Your task to perform on an android device: check data usage Image 0: 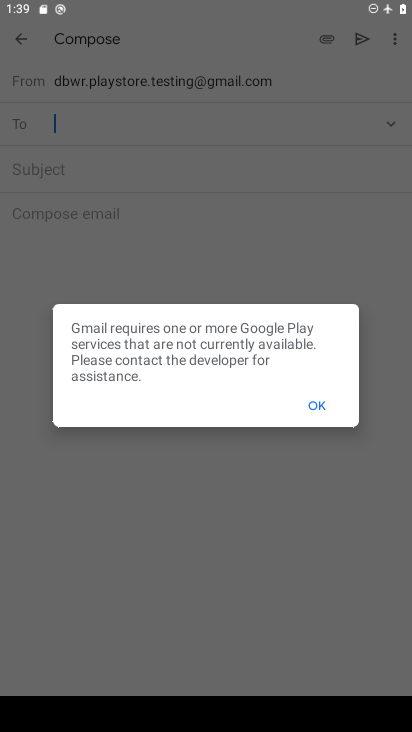
Step 0: click (317, 402)
Your task to perform on an android device: check data usage Image 1: 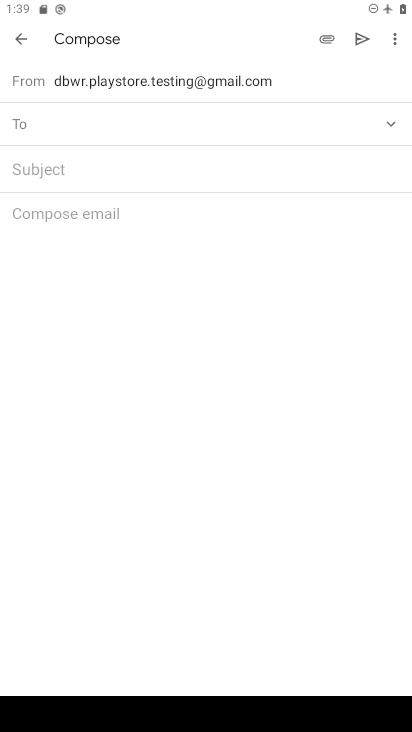
Step 1: drag from (197, 594) to (228, 140)
Your task to perform on an android device: check data usage Image 2: 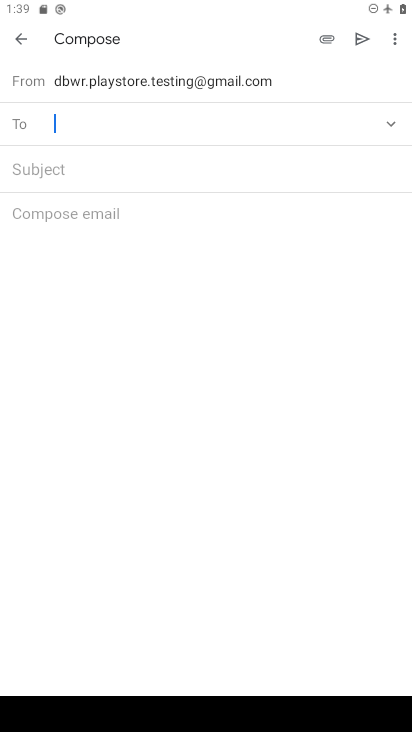
Step 2: click (182, 365)
Your task to perform on an android device: check data usage Image 3: 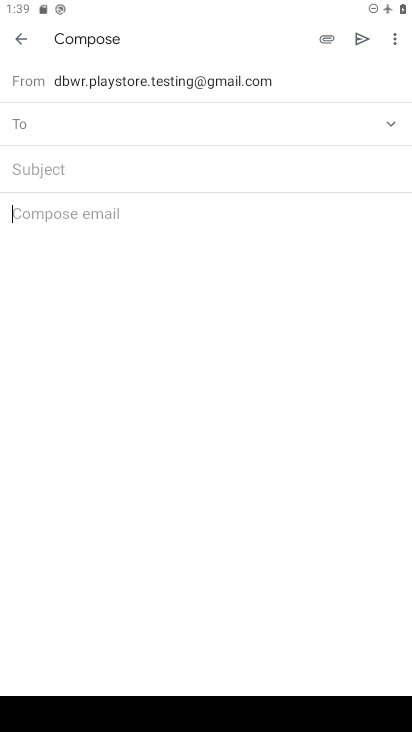
Step 3: press home button
Your task to perform on an android device: check data usage Image 4: 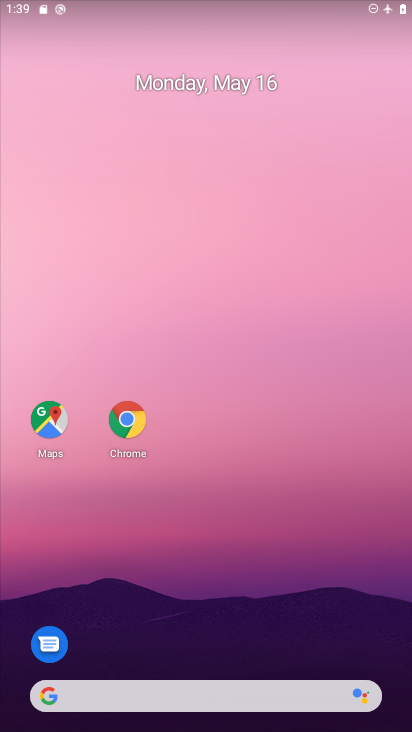
Step 4: drag from (206, 549) to (293, 43)
Your task to perform on an android device: check data usage Image 5: 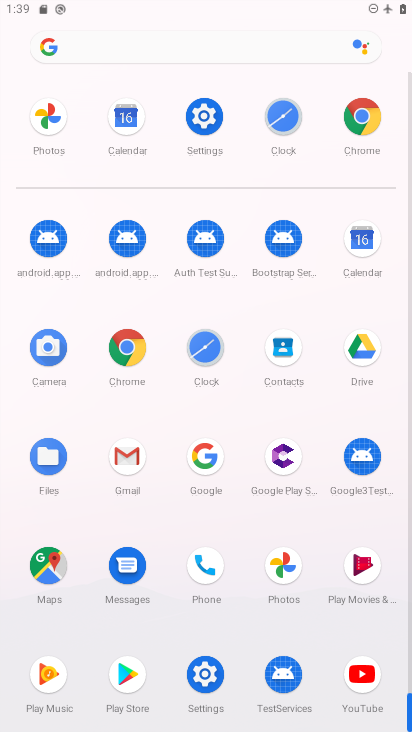
Step 5: click (189, 127)
Your task to perform on an android device: check data usage Image 6: 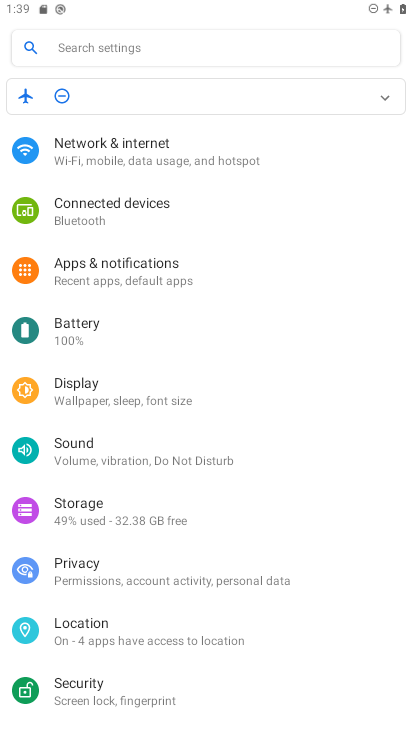
Step 6: click (136, 160)
Your task to perform on an android device: check data usage Image 7: 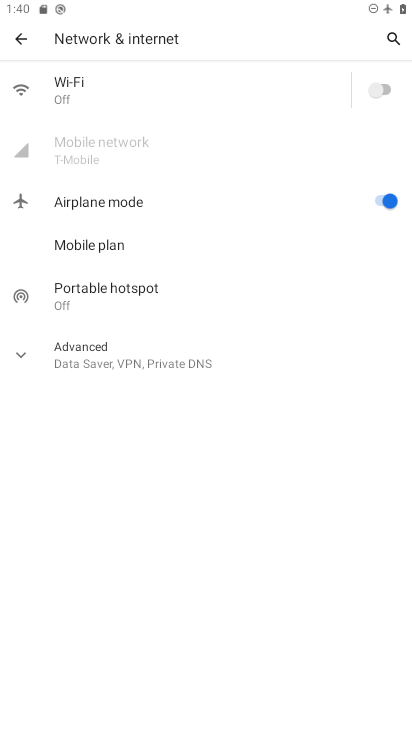
Step 7: click (198, 156)
Your task to perform on an android device: check data usage Image 8: 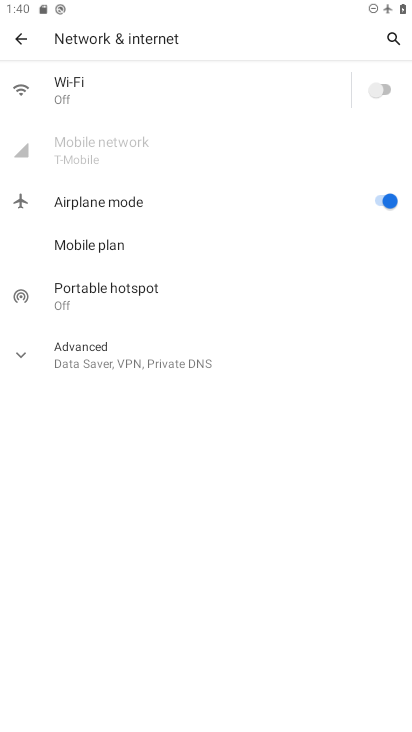
Step 8: task complete